Your task to perform on an android device: change text size in settings app Image 0: 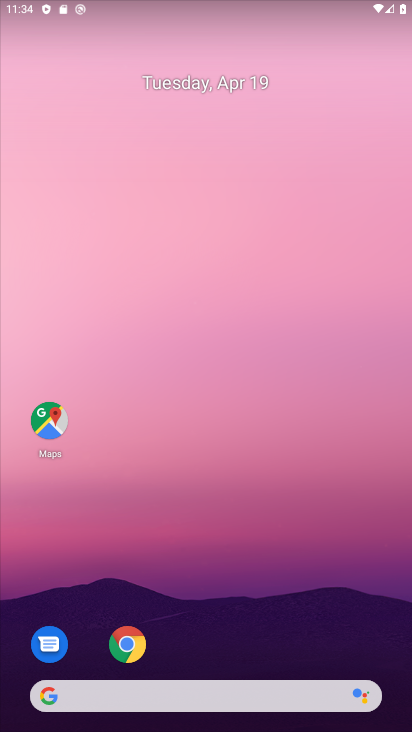
Step 0: click (213, 178)
Your task to perform on an android device: change text size in settings app Image 1: 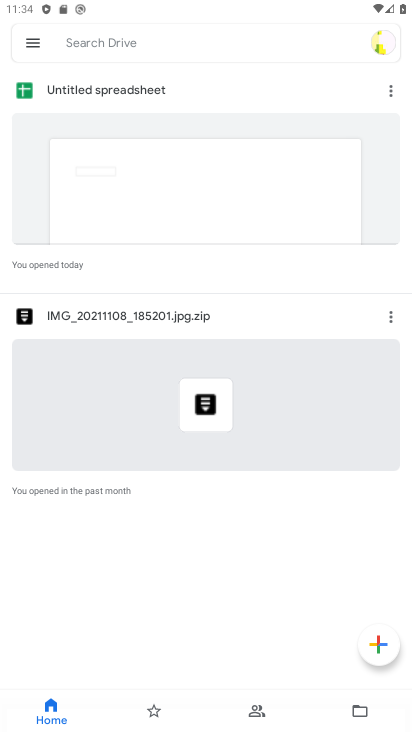
Step 1: press home button
Your task to perform on an android device: change text size in settings app Image 2: 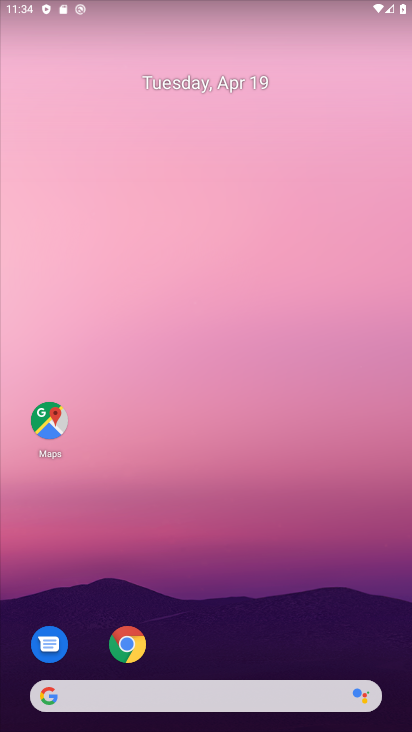
Step 2: drag from (225, 625) to (225, 219)
Your task to perform on an android device: change text size in settings app Image 3: 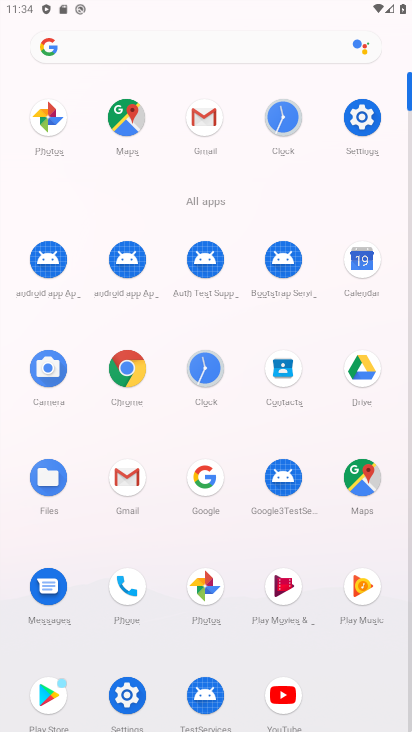
Step 3: click (357, 117)
Your task to perform on an android device: change text size in settings app Image 4: 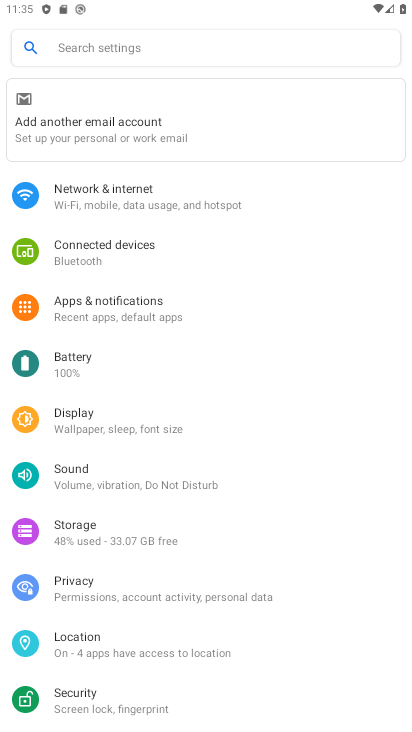
Step 4: click (101, 420)
Your task to perform on an android device: change text size in settings app Image 5: 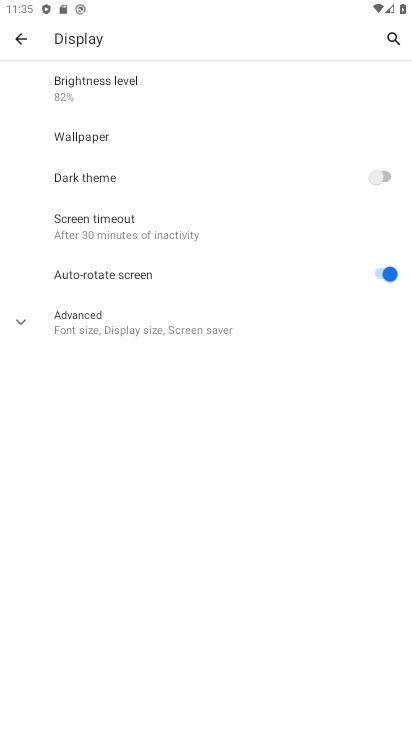
Step 5: click (111, 310)
Your task to perform on an android device: change text size in settings app Image 6: 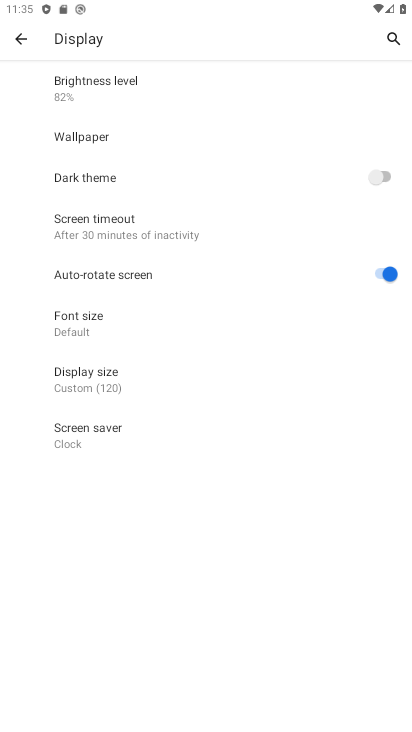
Step 6: click (103, 326)
Your task to perform on an android device: change text size in settings app Image 7: 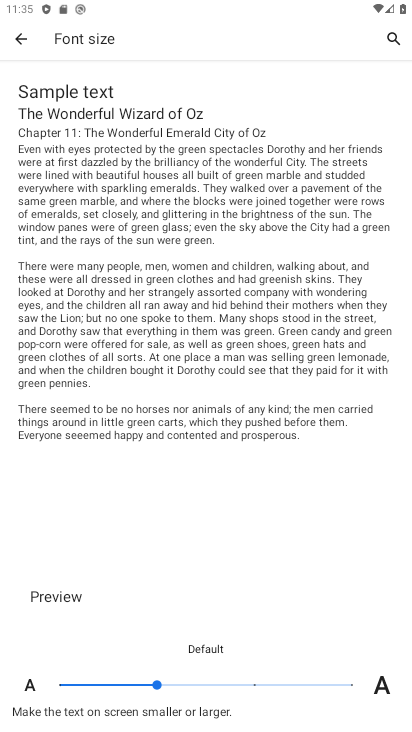
Step 7: click (63, 683)
Your task to perform on an android device: change text size in settings app Image 8: 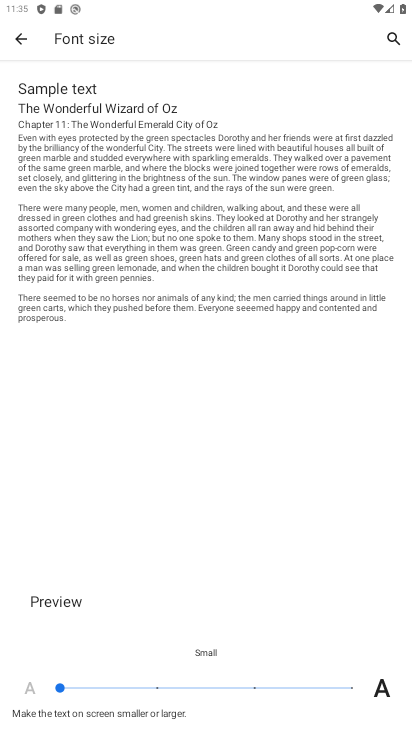
Step 8: task complete